Your task to perform on an android device: open a new tab in the chrome app Image 0: 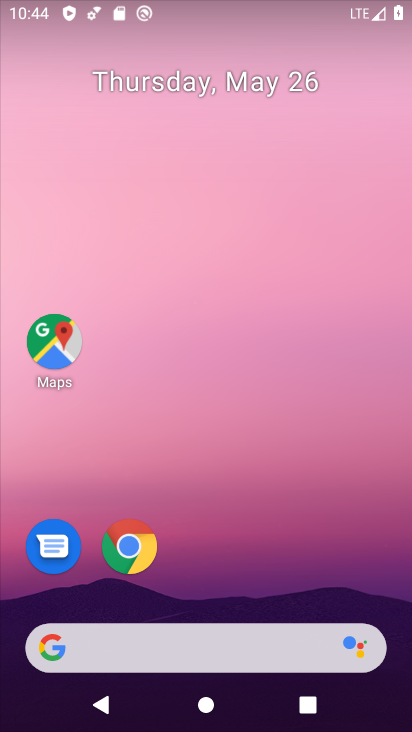
Step 0: click (130, 546)
Your task to perform on an android device: open a new tab in the chrome app Image 1: 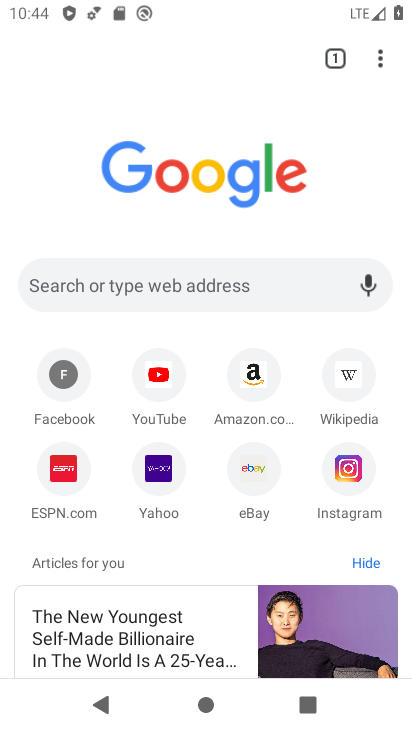
Step 1: click (334, 57)
Your task to perform on an android device: open a new tab in the chrome app Image 2: 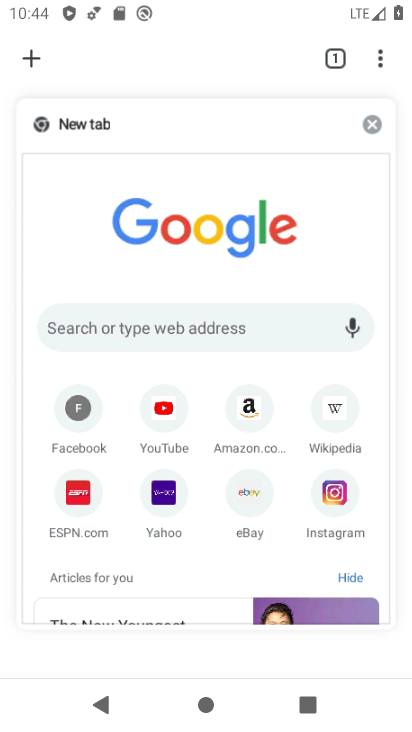
Step 2: click (27, 57)
Your task to perform on an android device: open a new tab in the chrome app Image 3: 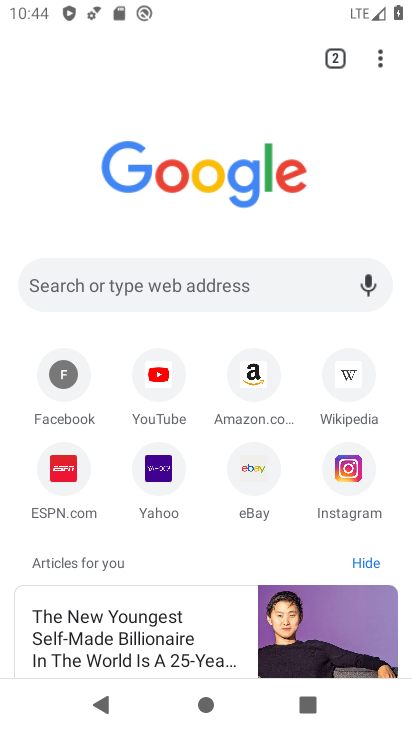
Step 3: task complete